Your task to perform on an android device: see sites visited before in the chrome app Image 0: 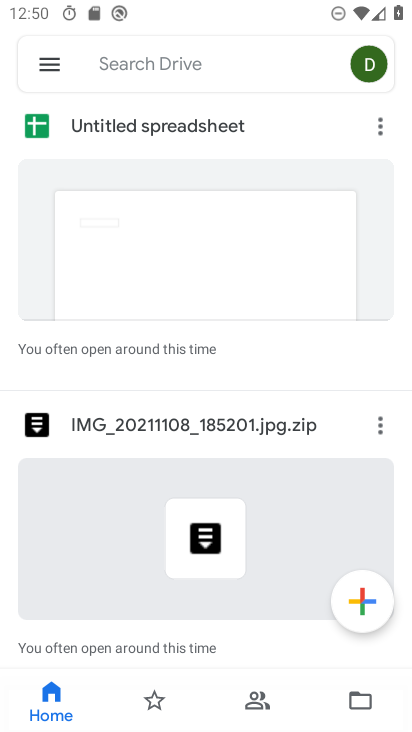
Step 0: press home button
Your task to perform on an android device: see sites visited before in the chrome app Image 1: 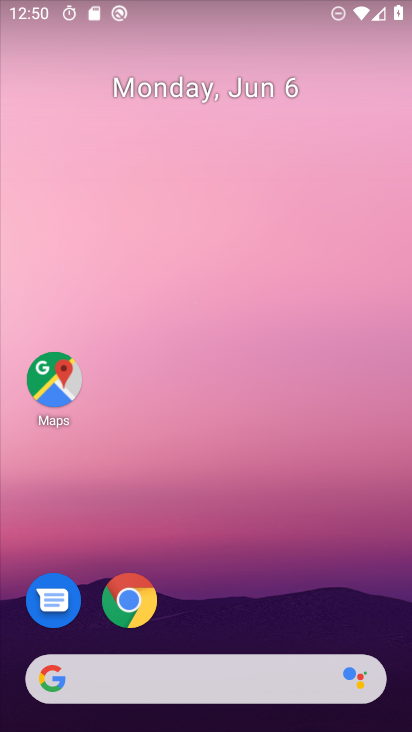
Step 1: click (119, 620)
Your task to perform on an android device: see sites visited before in the chrome app Image 2: 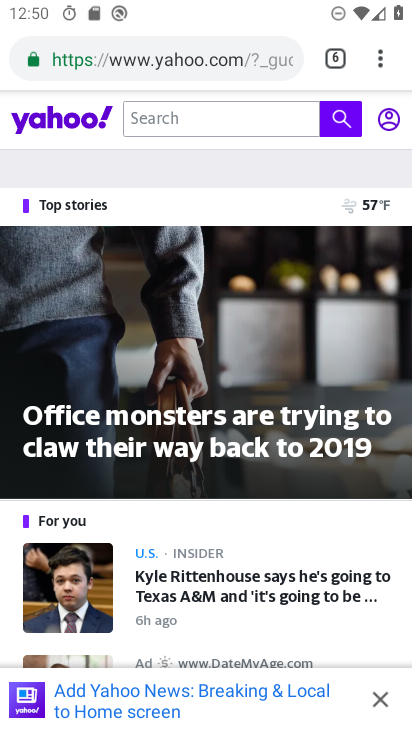
Step 2: task complete